Your task to perform on an android device: turn on wifi Image 0: 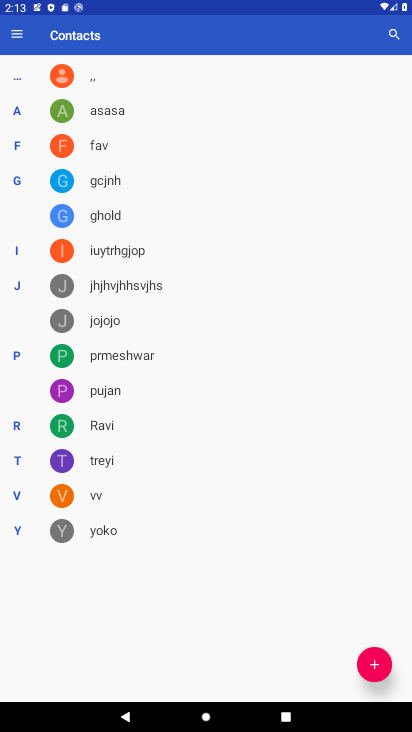
Step 0: press home button
Your task to perform on an android device: turn on wifi Image 1: 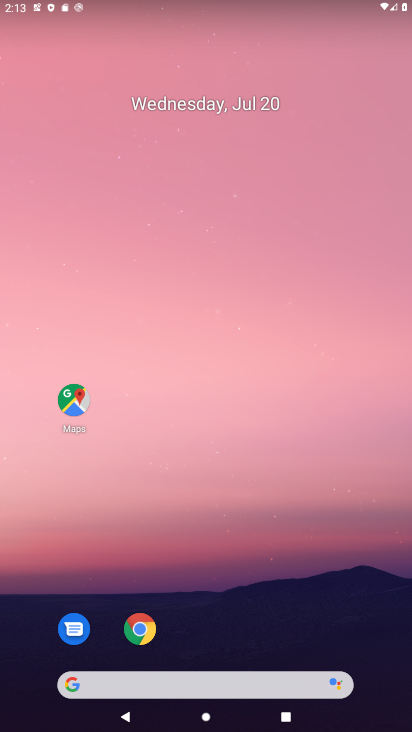
Step 1: drag from (181, 686) to (185, 117)
Your task to perform on an android device: turn on wifi Image 2: 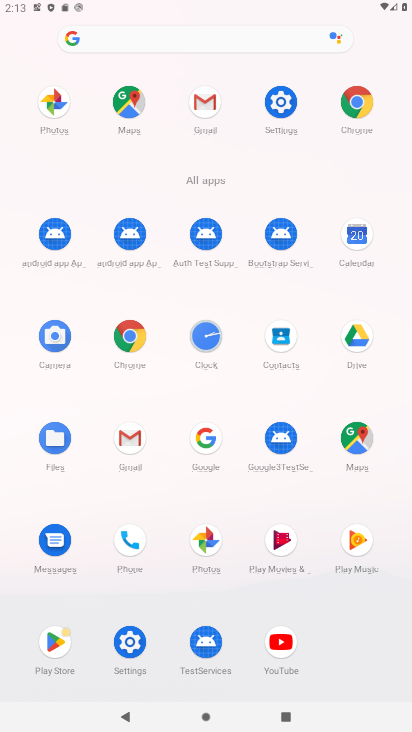
Step 2: click (281, 110)
Your task to perform on an android device: turn on wifi Image 3: 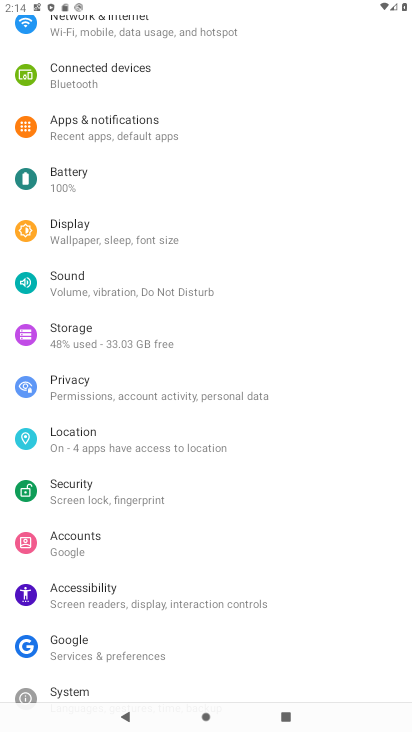
Step 3: drag from (135, 66) to (138, 548)
Your task to perform on an android device: turn on wifi Image 4: 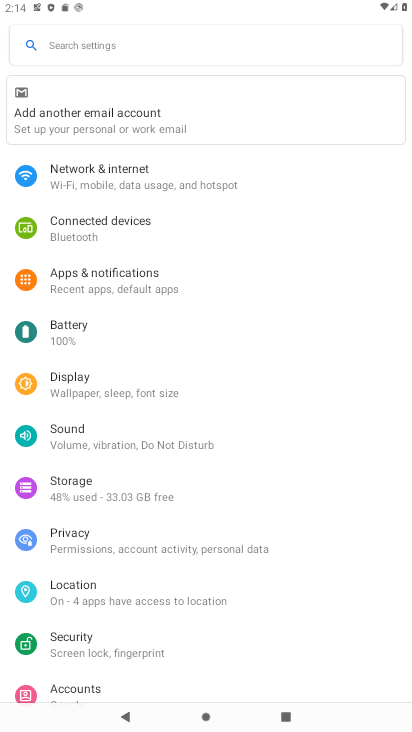
Step 4: click (122, 170)
Your task to perform on an android device: turn on wifi Image 5: 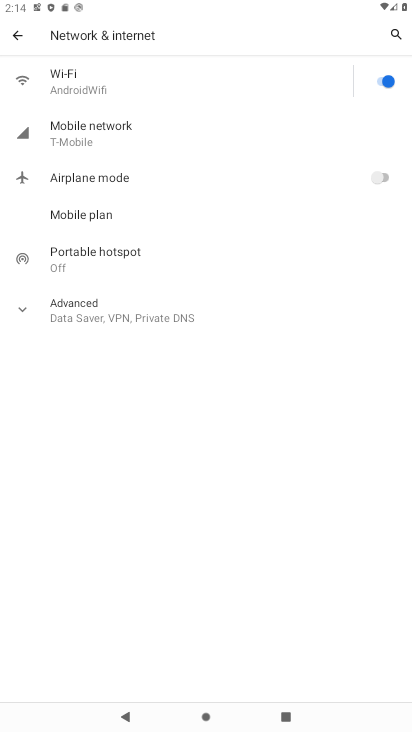
Step 5: task complete